Your task to perform on an android device: Go to wifi settings Image 0: 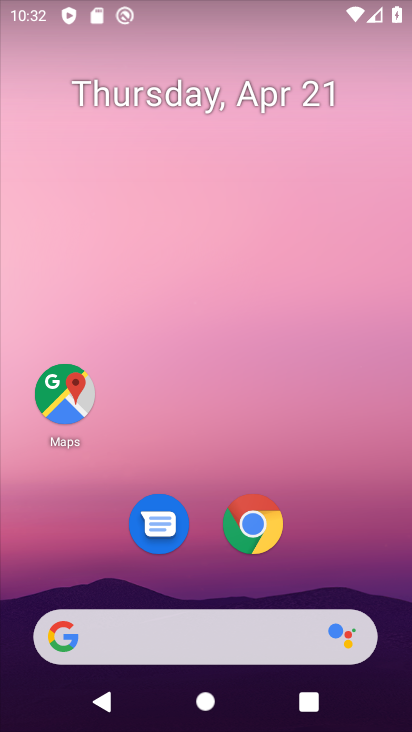
Step 0: drag from (330, 562) to (361, 99)
Your task to perform on an android device: Go to wifi settings Image 1: 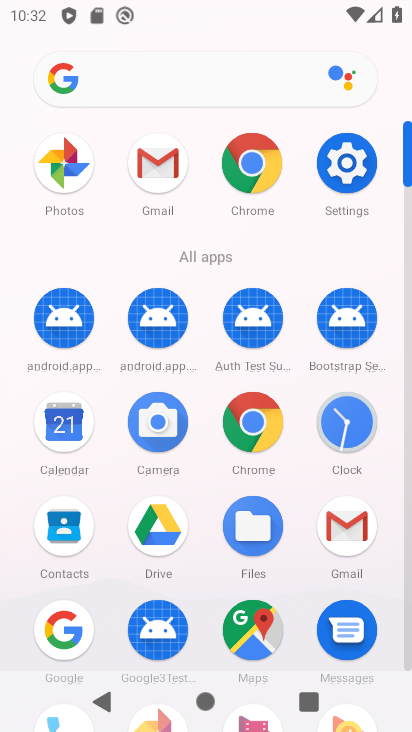
Step 1: click (335, 159)
Your task to perform on an android device: Go to wifi settings Image 2: 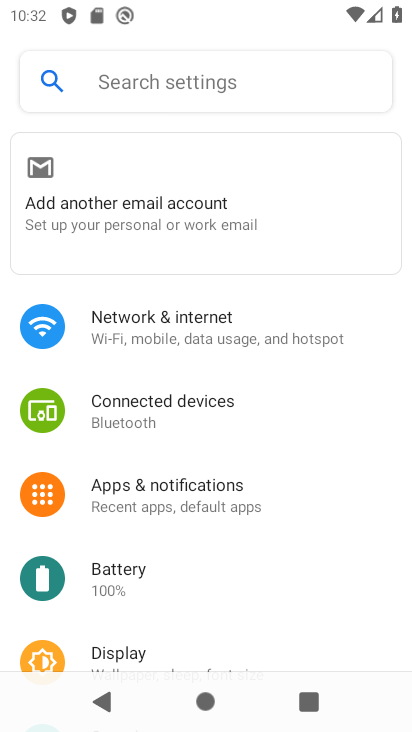
Step 2: click (163, 332)
Your task to perform on an android device: Go to wifi settings Image 3: 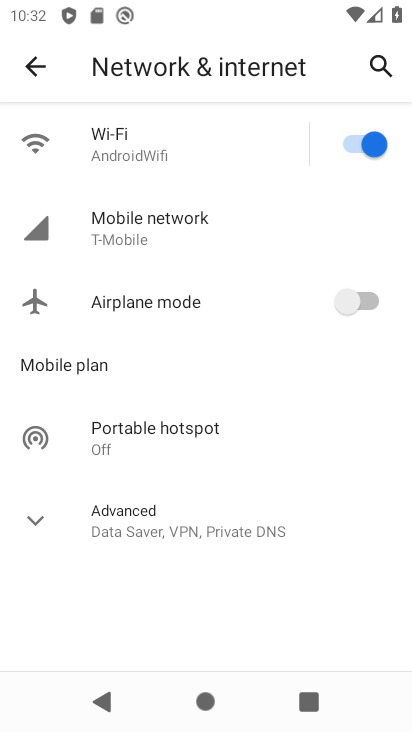
Step 3: click (199, 132)
Your task to perform on an android device: Go to wifi settings Image 4: 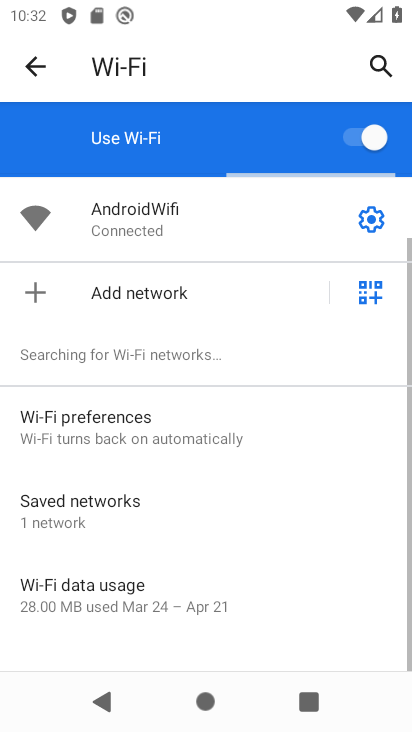
Step 4: task complete